Your task to perform on an android device: add a contact in the contacts app Image 0: 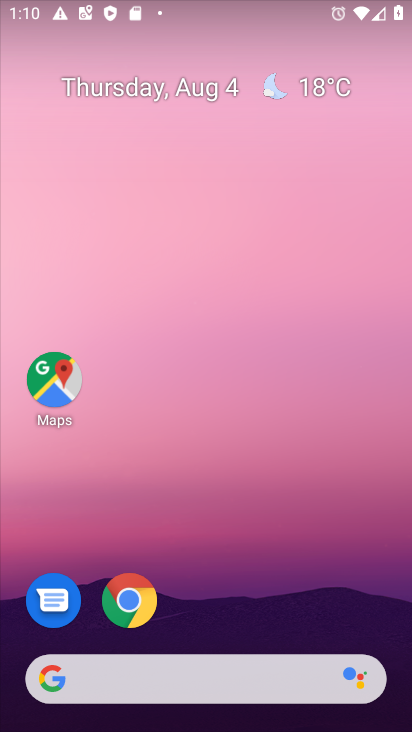
Step 0: drag from (174, 672) to (292, 181)
Your task to perform on an android device: add a contact in the contacts app Image 1: 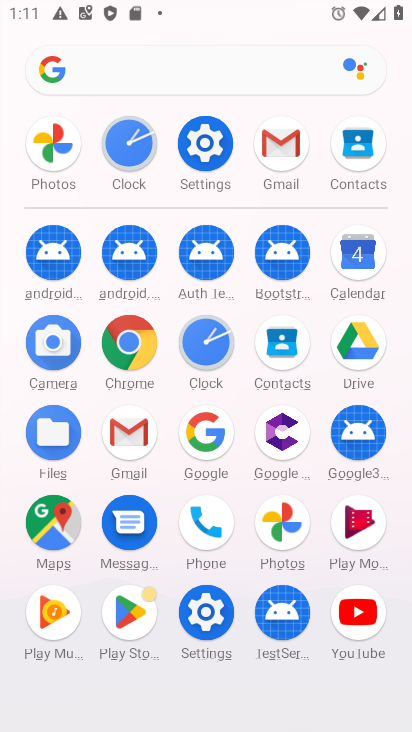
Step 1: click (275, 341)
Your task to perform on an android device: add a contact in the contacts app Image 2: 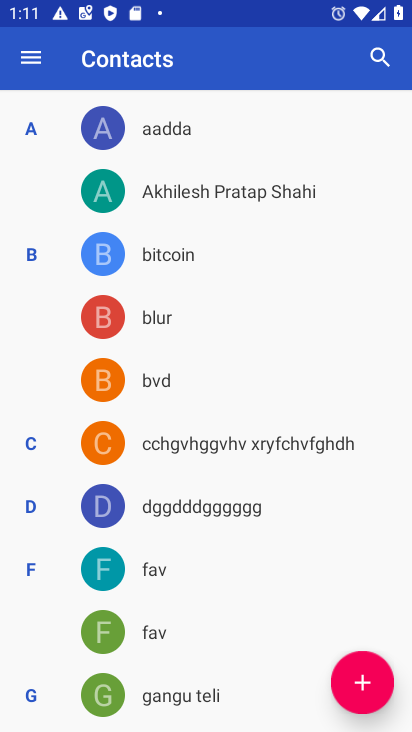
Step 2: click (357, 677)
Your task to perform on an android device: add a contact in the contacts app Image 3: 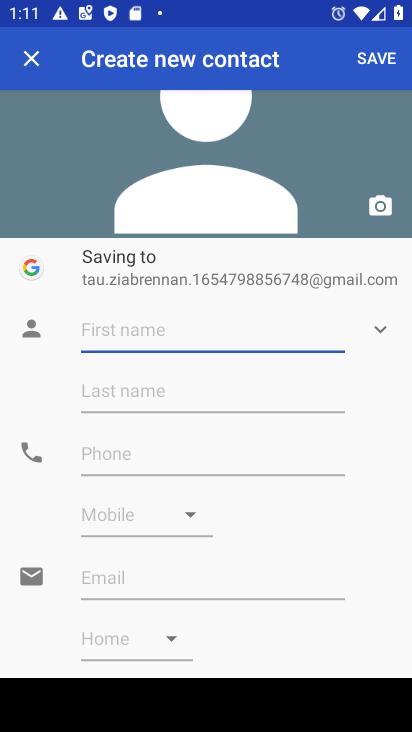
Step 3: type "mworytgn"
Your task to perform on an android device: add a contact in the contacts app Image 4: 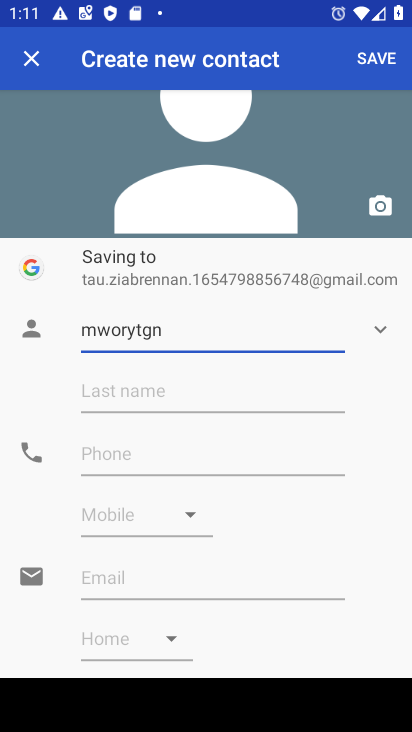
Step 4: click (109, 445)
Your task to perform on an android device: add a contact in the contacts app Image 5: 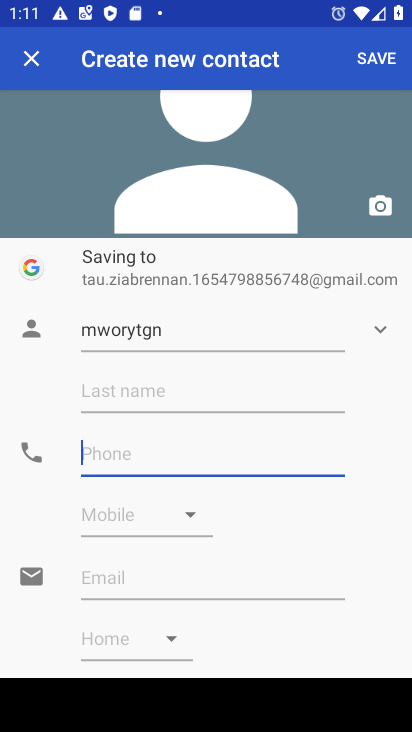
Step 5: type "10394765"
Your task to perform on an android device: add a contact in the contacts app Image 6: 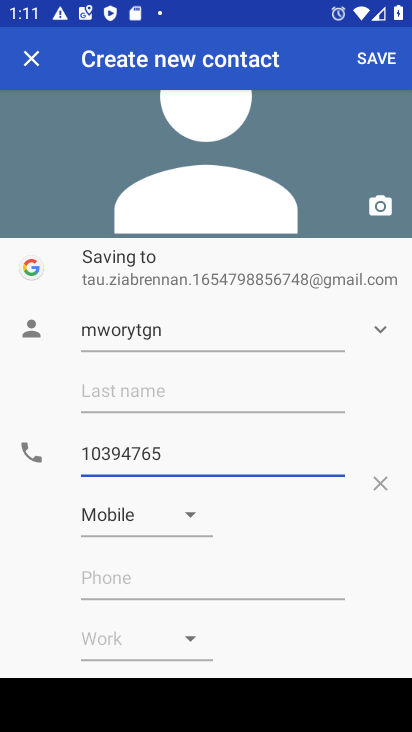
Step 6: click (384, 51)
Your task to perform on an android device: add a contact in the contacts app Image 7: 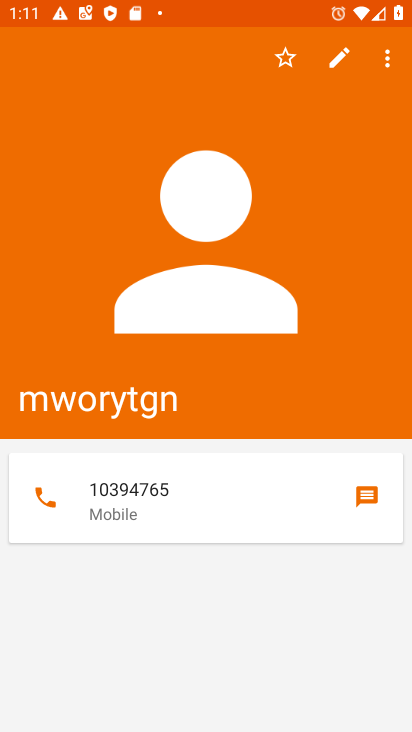
Step 7: task complete